Your task to perform on an android device: open a bookmark in the chrome app Image 0: 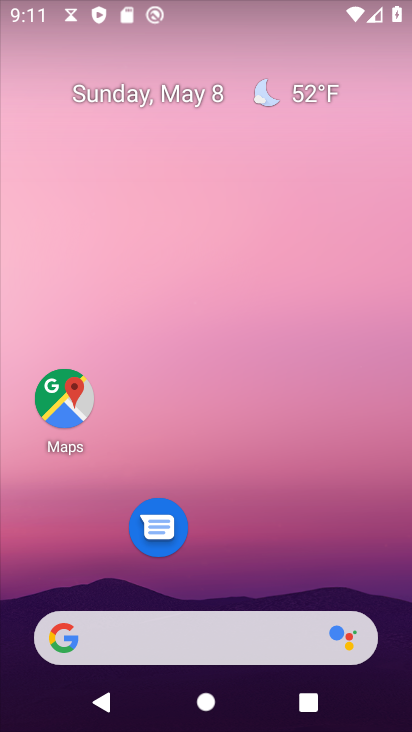
Step 0: drag from (243, 545) to (207, 131)
Your task to perform on an android device: open a bookmark in the chrome app Image 1: 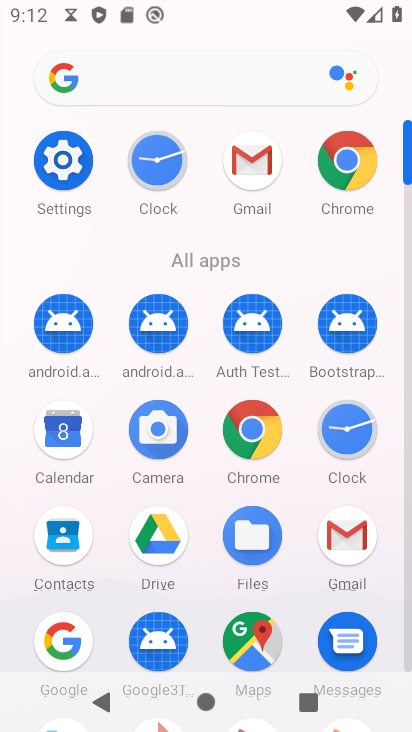
Step 1: click (349, 158)
Your task to perform on an android device: open a bookmark in the chrome app Image 2: 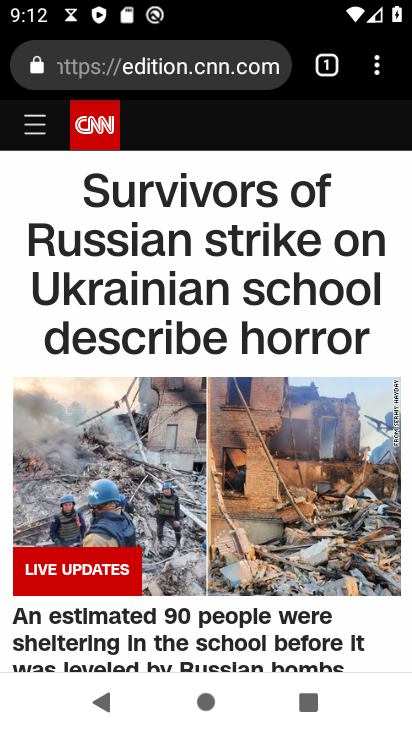
Step 2: click (382, 68)
Your task to perform on an android device: open a bookmark in the chrome app Image 3: 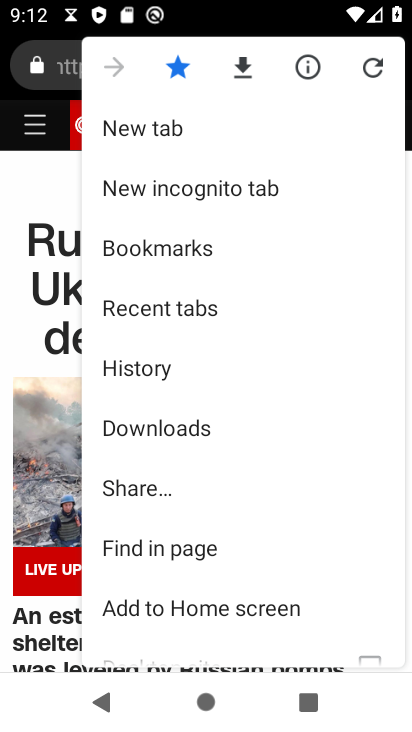
Step 3: click (204, 258)
Your task to perform on an android device: open a bookmark in the chrome app Image 4: 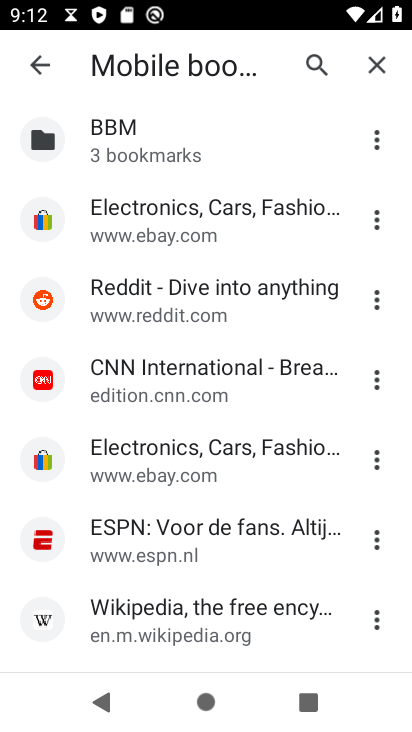
Step 4: task complete